Your task to perform on an android device: Go to settings Image 0: 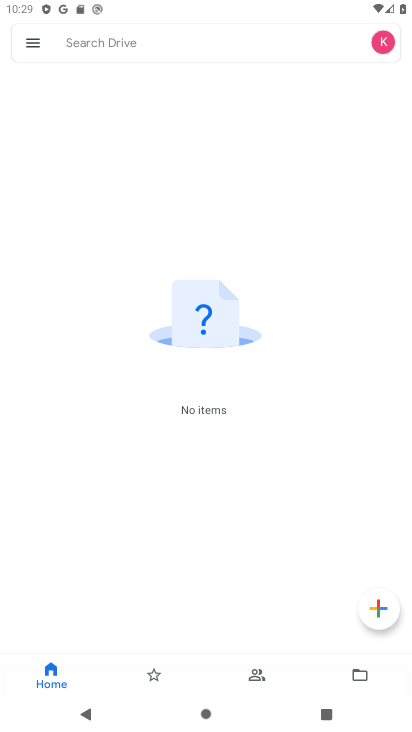
Step 0: press home button
Your task to perform on an android device: Go to settings Image 1: 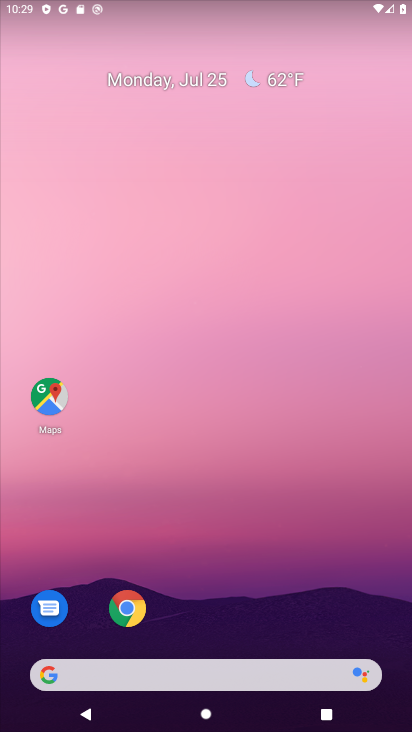
Step 1: drag from (279, 617) to (293, 237)
Your task to perform on an android device: Go to settings Image 2: 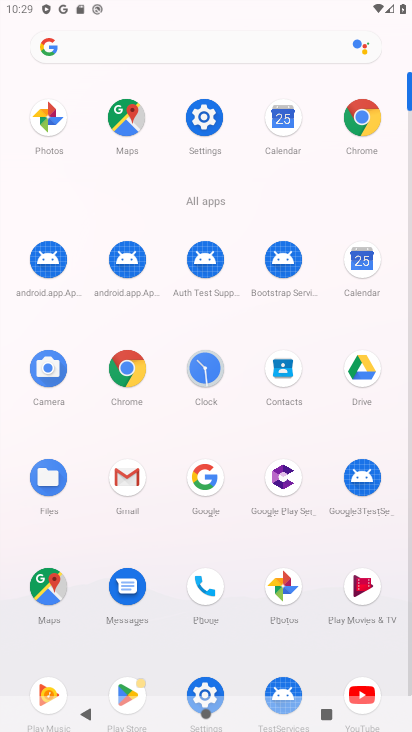
Step 2: click (208, 106)
Your task to perform on an android device: Go to settings Image 3: 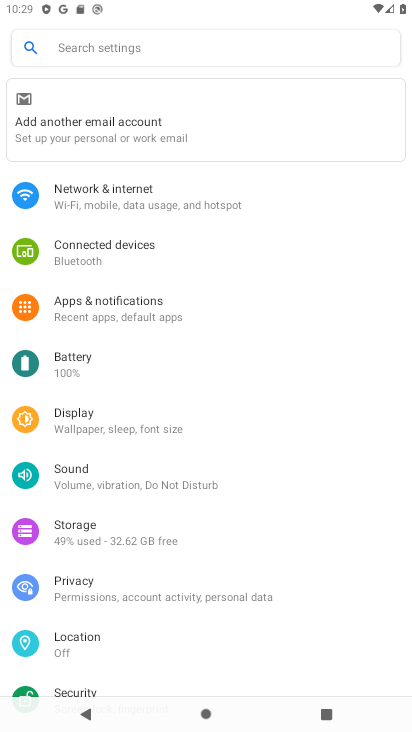
Step 3: task complete